Your task to perform on an android device: empty trash in the gmail app Image 0: 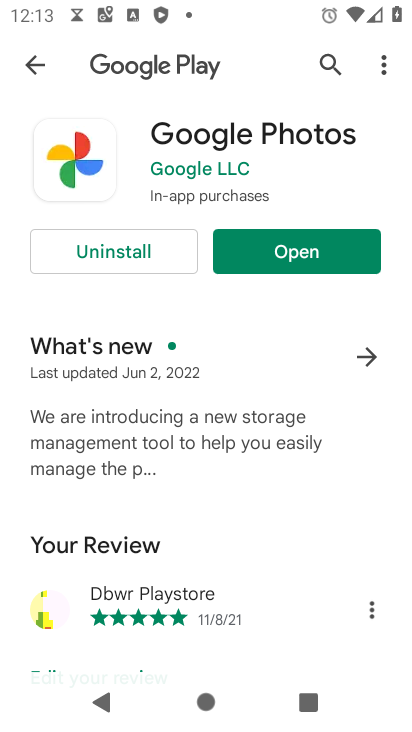
Step 0: press home button
Your task to perform on an android device: empty trash in the gmail app Image 1: 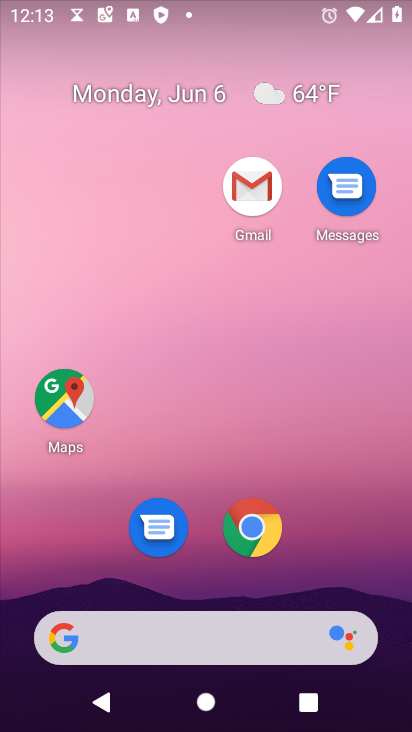
Step 1: click (236, 179)
Your task to perform on an android device: empty trash in the gmail app Image 2: 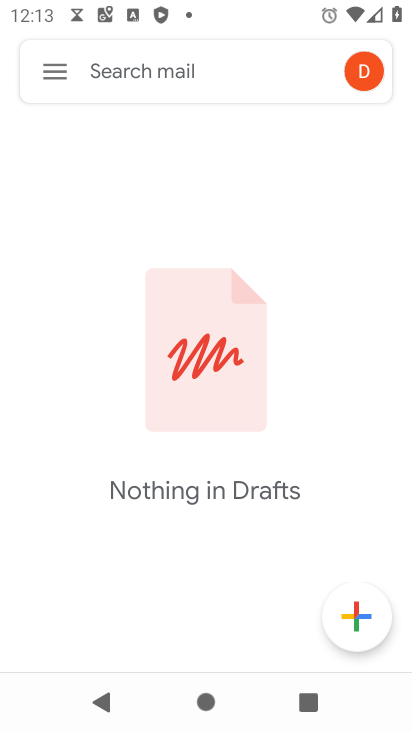
Step 2: click (60, 79)
Your task to perform on an android device: empty trash in the gmail app Image 3: 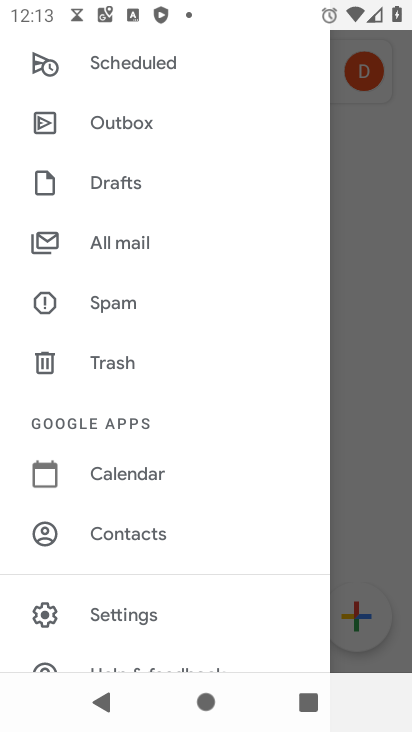
Step 3: click (116, 368)
Your task to perform on an android device: empty trash in the gmail app Image 4: 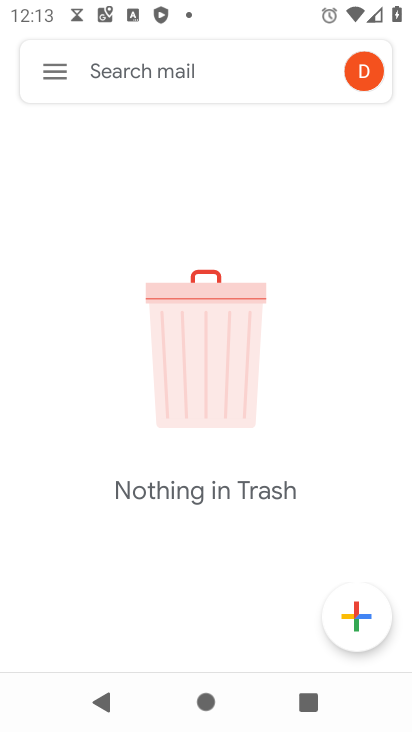
Step 4: task complete